Your task to perform on an android device: all mails in gmail Image 0: 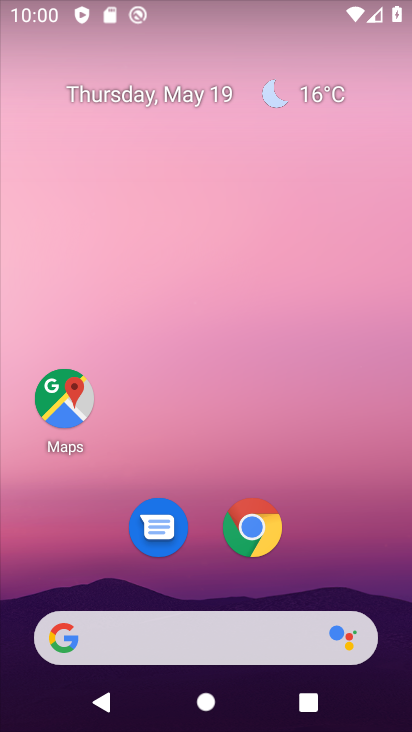
Step 0: drag from (194, 601) to (225, 215)
Your task to perform on an android device: all mails in gmail Image 1: 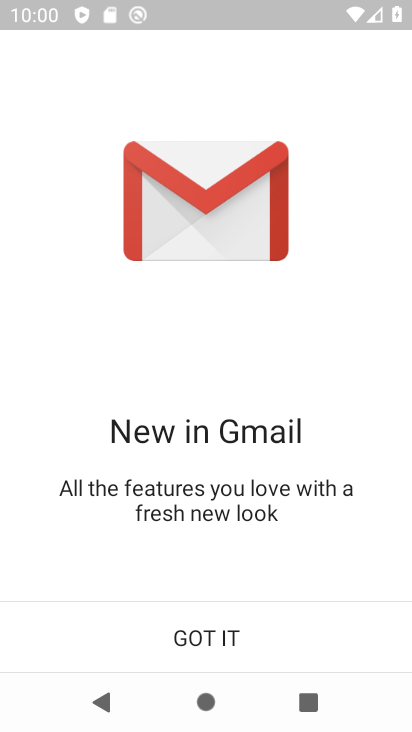
Step 1: press home button
Your task to perform on an android device: all mails in gmail Image 2: 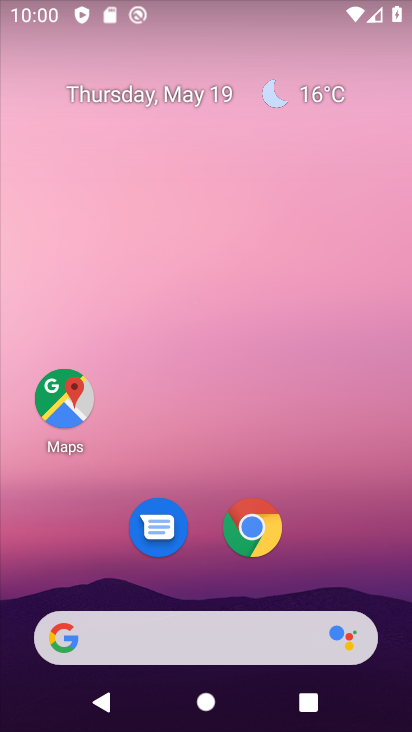
Step 2: drag from (184, 601) to (202, 271)
Your task to perform on an android device: all mails in gmail Image 3: 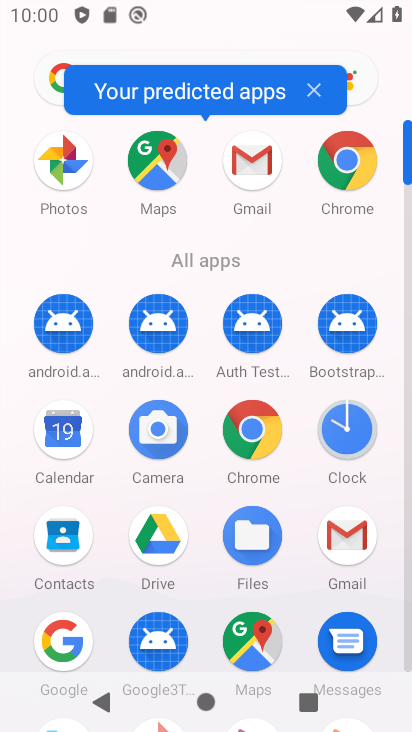
Step 3: click (247, 165)
Your task to perform on an android device: all mails in gmail Image 4: 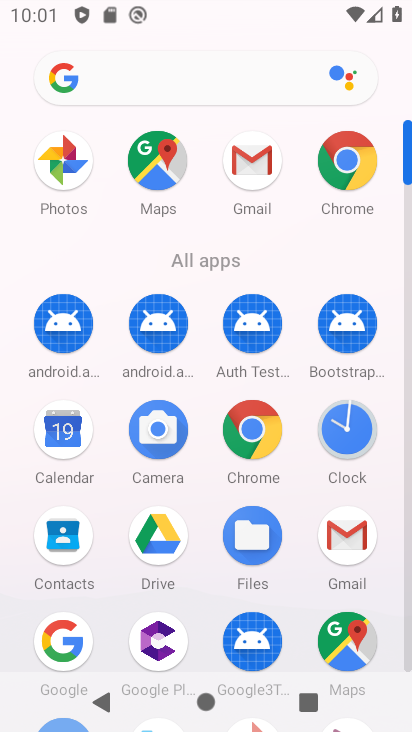
Step 4: click (254, 179)
Your task to perform on an android device: all mails in gmail Image 5: 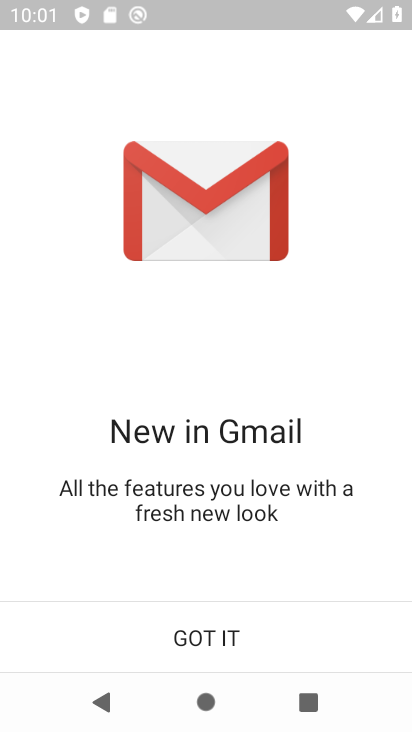
Step 5: click (191, 638)
Your task to perform on an android device: all mails in gmail Image 6: 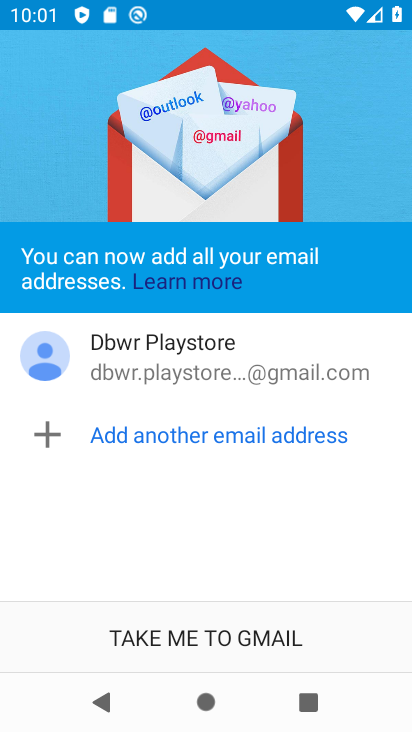
Step 6: click (191, 638)
Your task to perform on an android device: all mails in gmail Image 7: 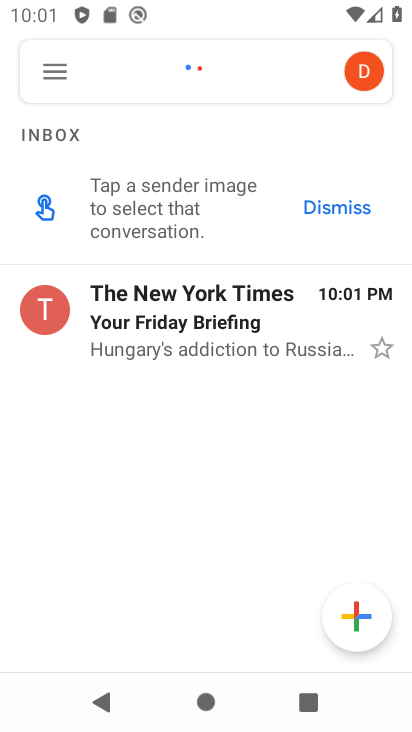
Step 7: click (57, 74)
Your task to perform on an android device: all mails in gmail Image 8: 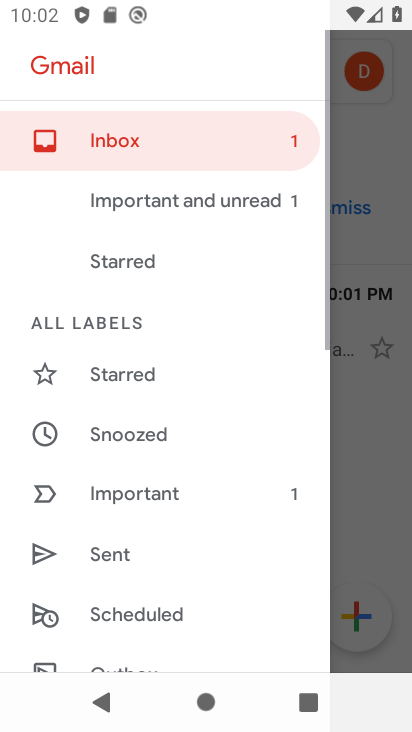
Step 8: drag from (146, 615) to (167, 287)
Your task to perform on an android device: all mails in gmail Image 9: 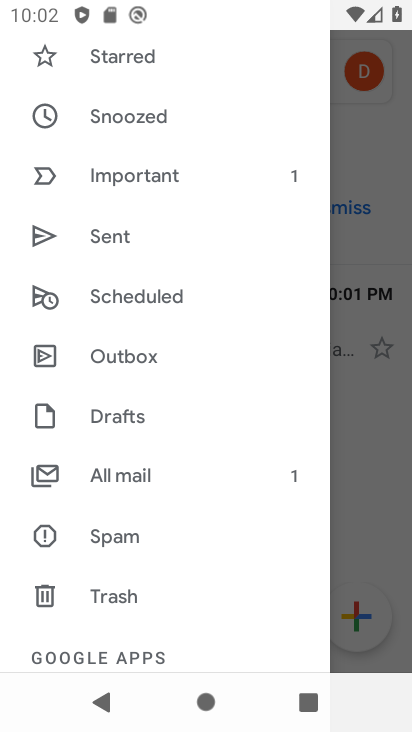
Step 9: click (123, 475)
Your task to perform on an android device: all mails in gmail Image 10: 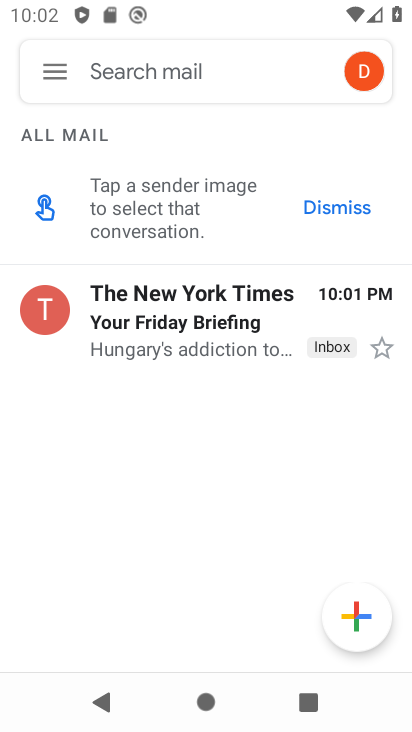
Step 10: task complete